Your task to perform on an android device: Go to Google maps Image 0: 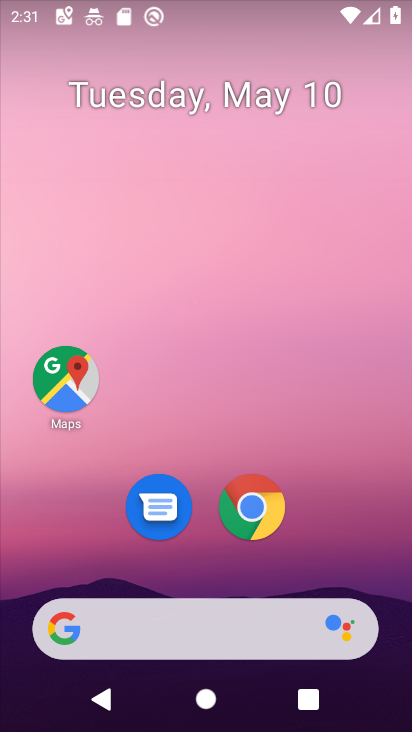
Step 0: click (70, 384)
Your task to perform on an android device: Go to Google maps Image 1: 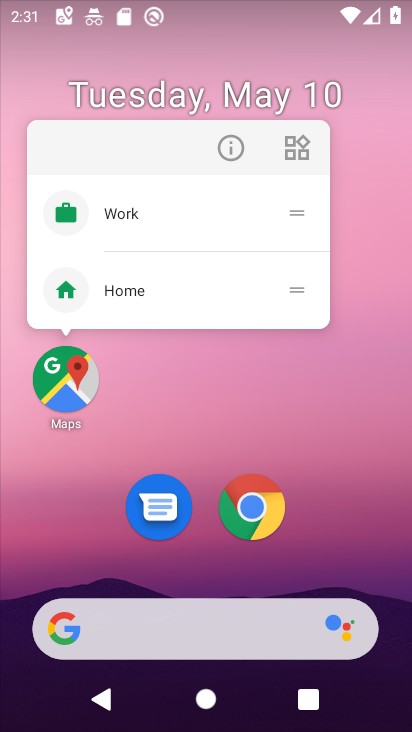
Step 1: click (72, 380)
Your task to perform on an android device: Go to Google maps Image 2: 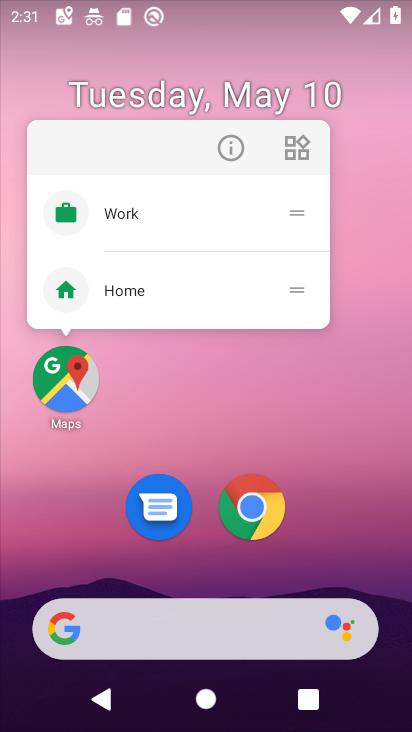
Step 2: click (63, 380)
Your task to perform on an android device: Go to Google maps Image 3: 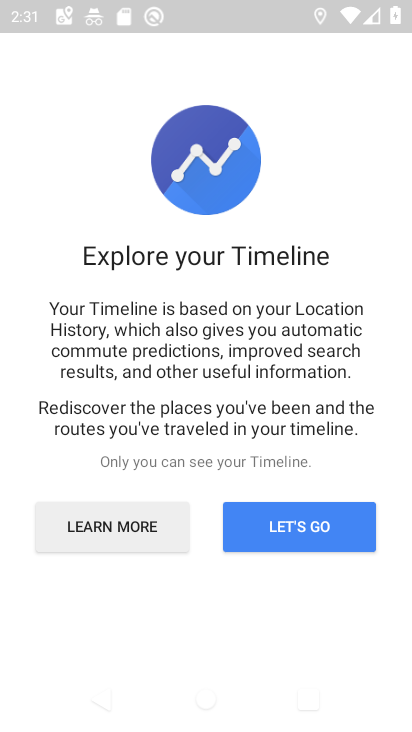
Step 3: click (284, 529)
Your task to perform on an android device: Go to Google maps Image 4: 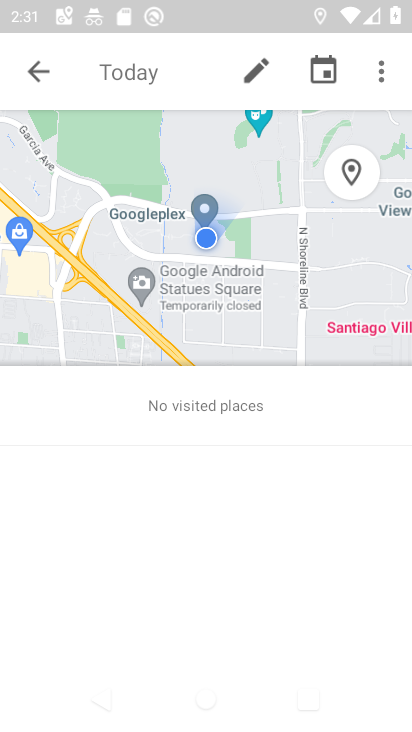
Step 4: task complete